Your task to perform on an android device: find photos in the google photos app Image 0: 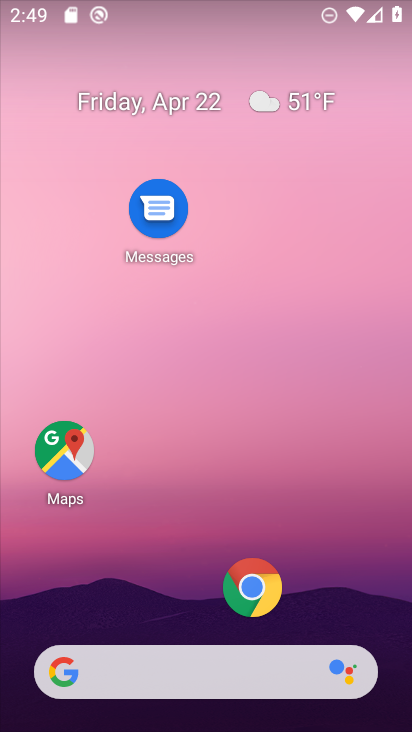
Step 0: drag from (198, 619) to (247, 196)
Your task to perform on an android device: find photos in the google photos app Image 1: 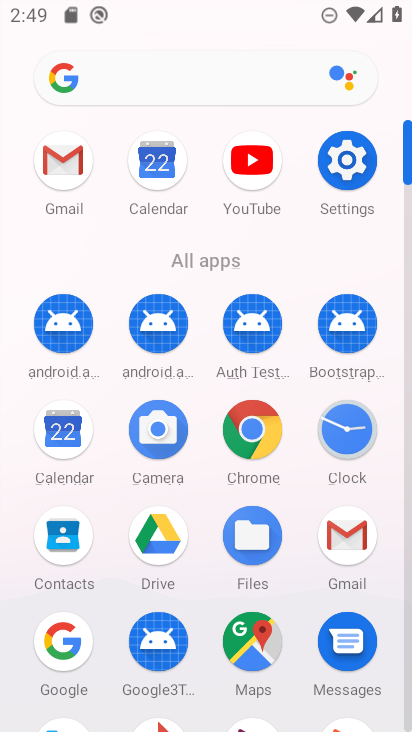
Step 1: drag from (110, 611) to (107, 261)
Your task to perform on an android device: find photos in the google photos app Image 2: 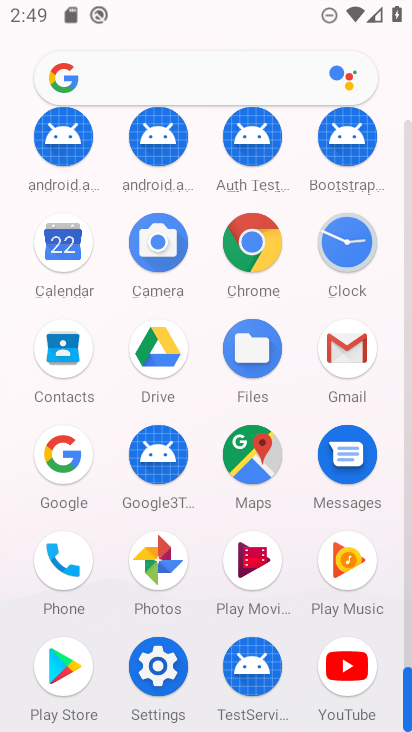
Step 2: click (143, 535)
Your task to perform on an android device: find photos in the google photos app Image 3: 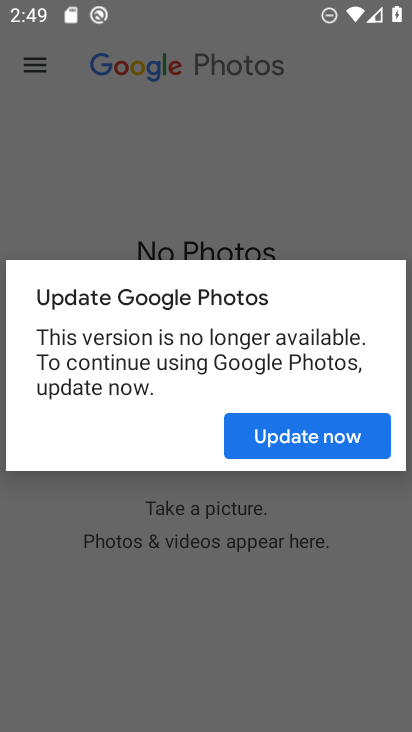
Step 3: click (304, 439)
Your task to perform on an android device: find photos in the google photos app Image 4: 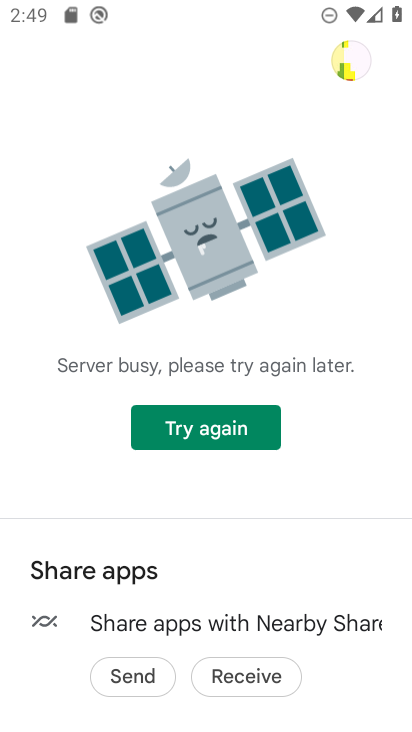
Step 4: press back button
Your task to perform on an android device: find photos in the google photos app Image 5: 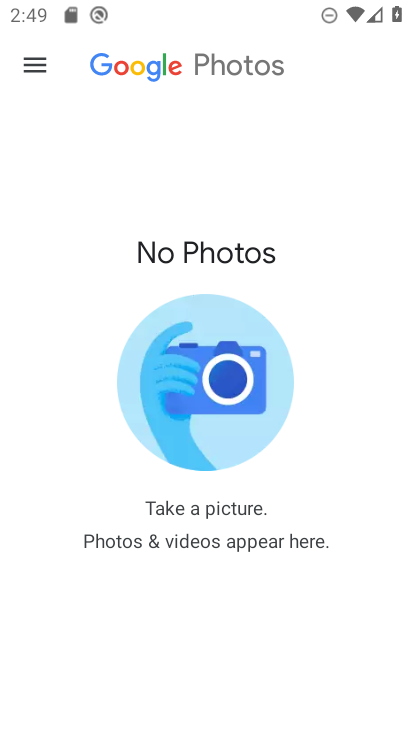
Step 5: click (17, 60)
Your task to perform on an android device: find photos in the google photos app Image 6: 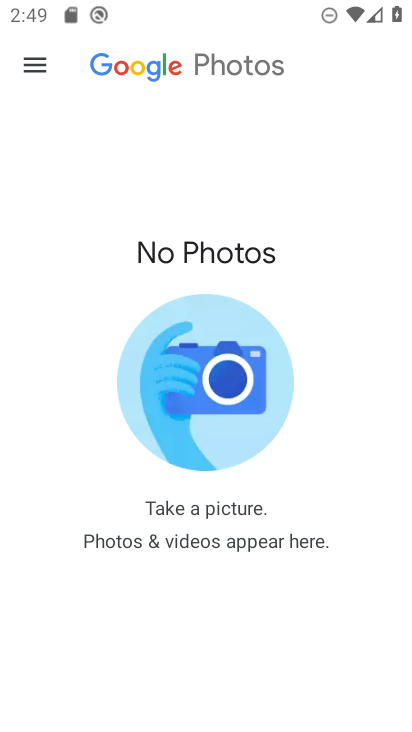
Step 6: click (31, 65)
Your task to perform on an android device: find photos in the google photos app Image 7: 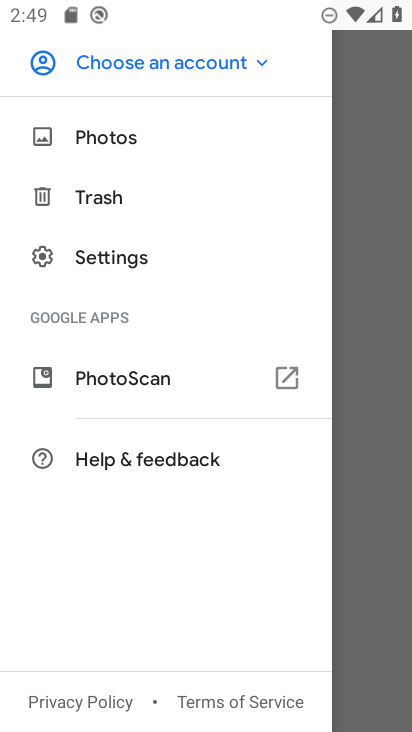
Step 7: click (190, 134)
Your task to perform on an android device: find photos in the google photos app Image 8: 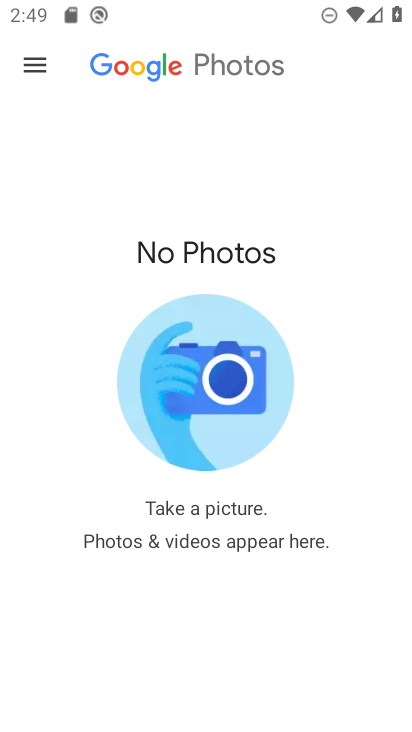
Step 8: task complete